Your task to perform on an android device: turn off priority inbox in the gmail app Image 0: 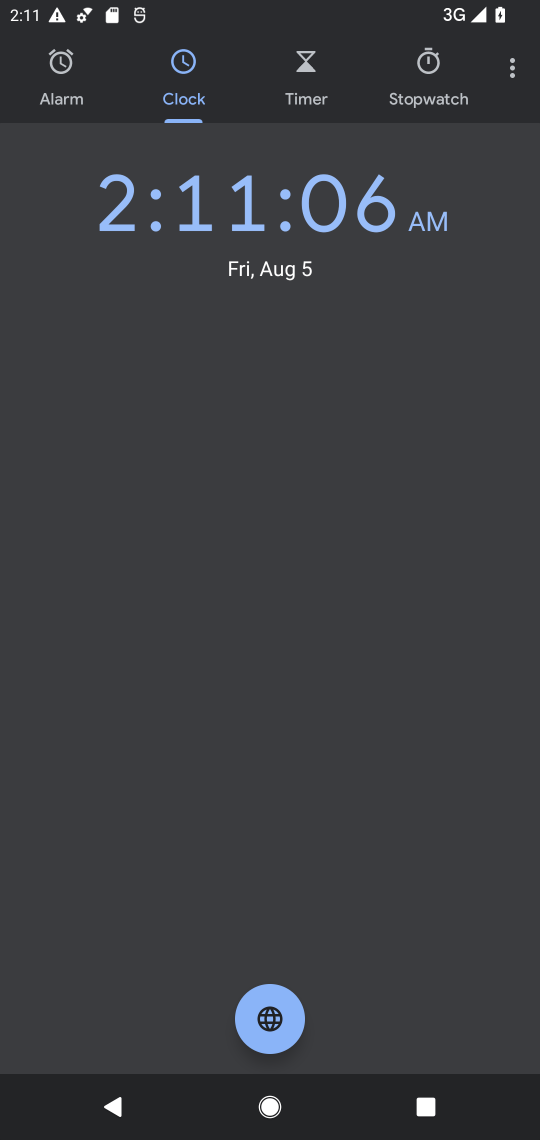
Step 0: press home button
Your task to perform on an android device: turn off priority inbox in the gmail app Image 1: 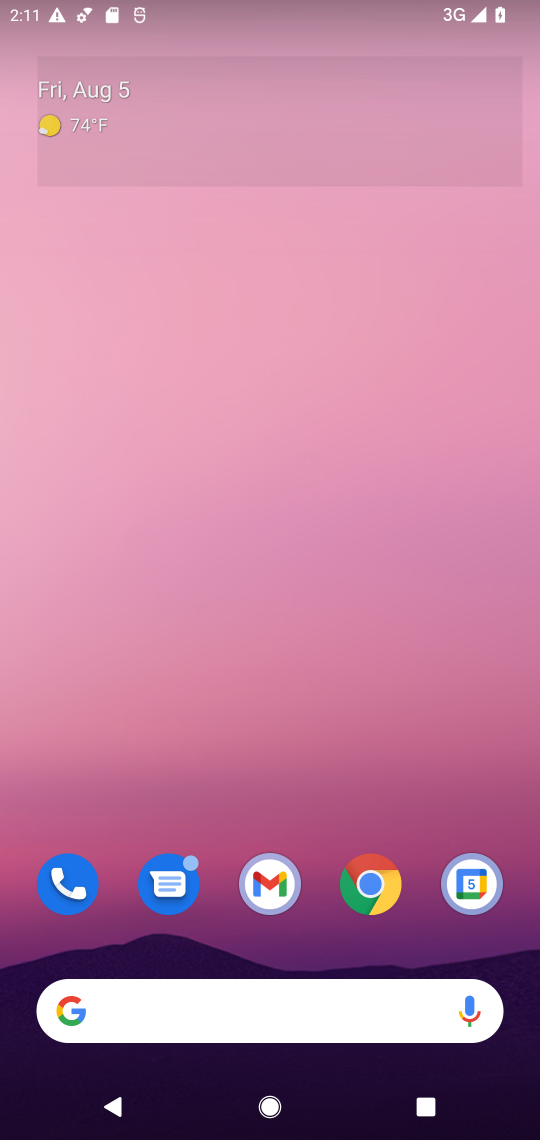
Step 1: drag from (479, 939) to (230, 3)
Your task to perform on an android device: turn off priority inbox in the gmail app Image 2: 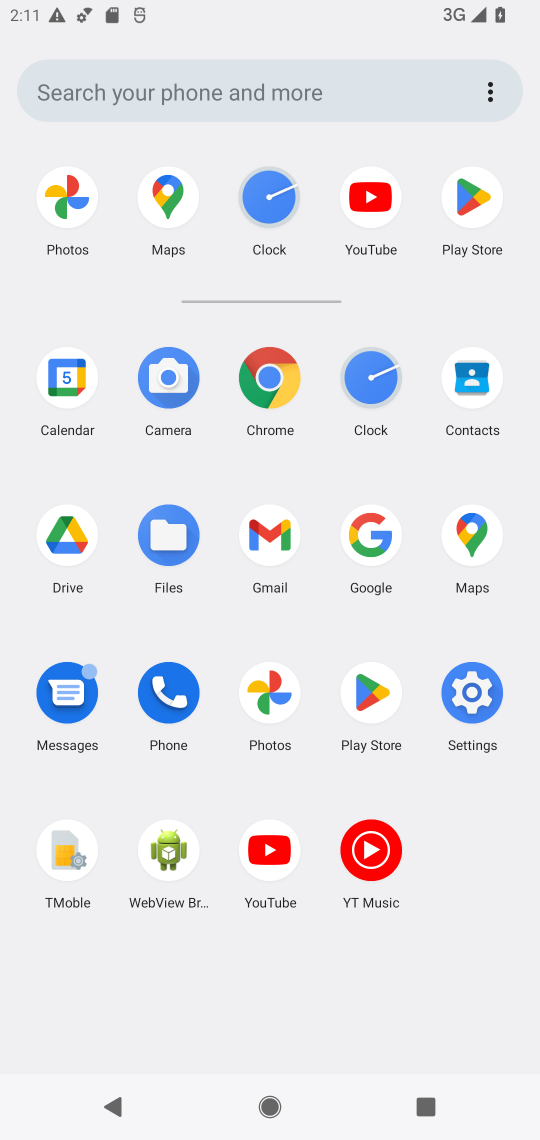
Step 2: click (249, 547)
Your task to perform on an android device: turn off priority inbox in the gmail app Image 3: 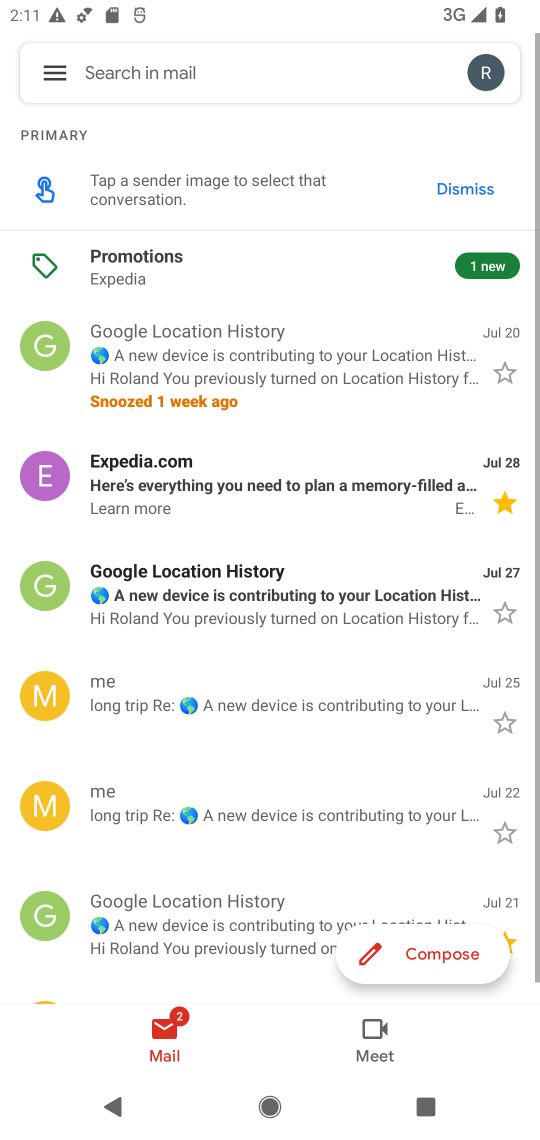
Step 3: click (59, 69)
Your task to perform on an android device: turn off priority inbox in the gmail app Image 4: 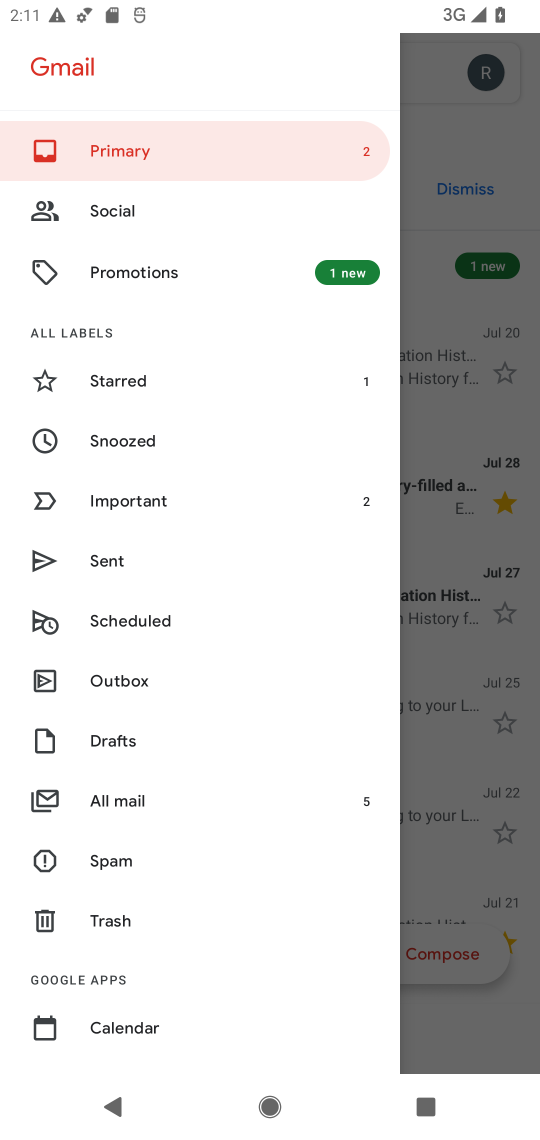
Step 4: drag from (94, 967) to (189, 29)
Your task to perform on an android device: turn off priority inbox in the gmail app Image 5: 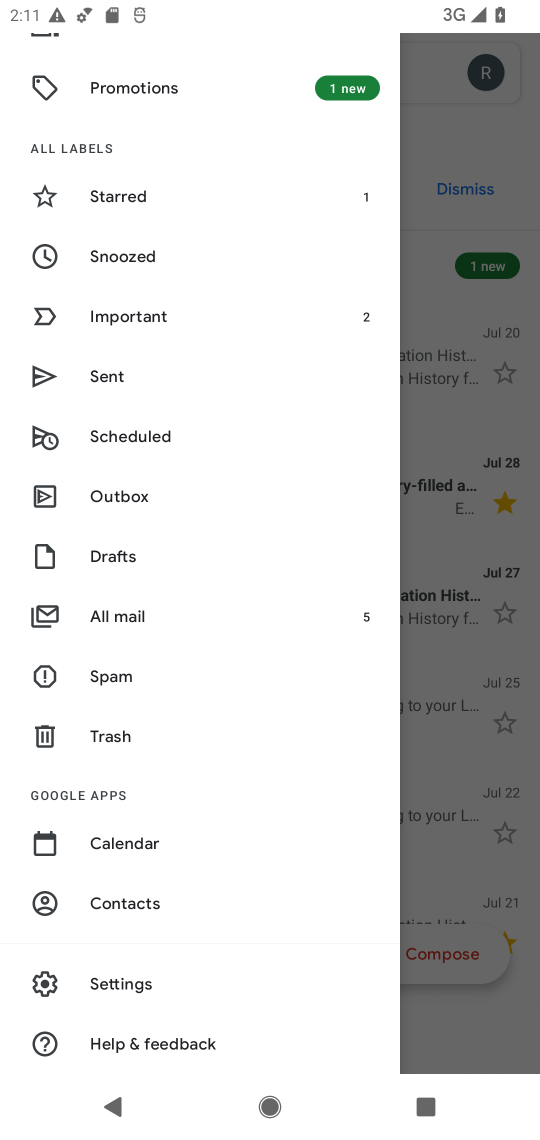
Step 5: click (114, 977)
Your task to perform on an android device: turn off priority inbox in the gmail app Image 6: 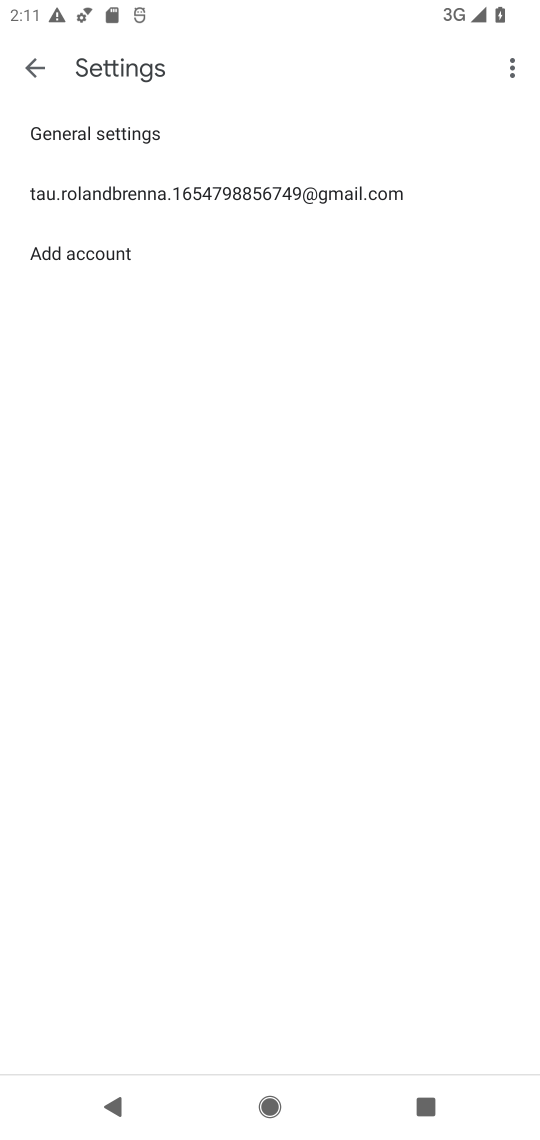
Step 6: click (172, 196)
Your task to perform on an android device: turn off priority inbox in the gmail app Image 7: 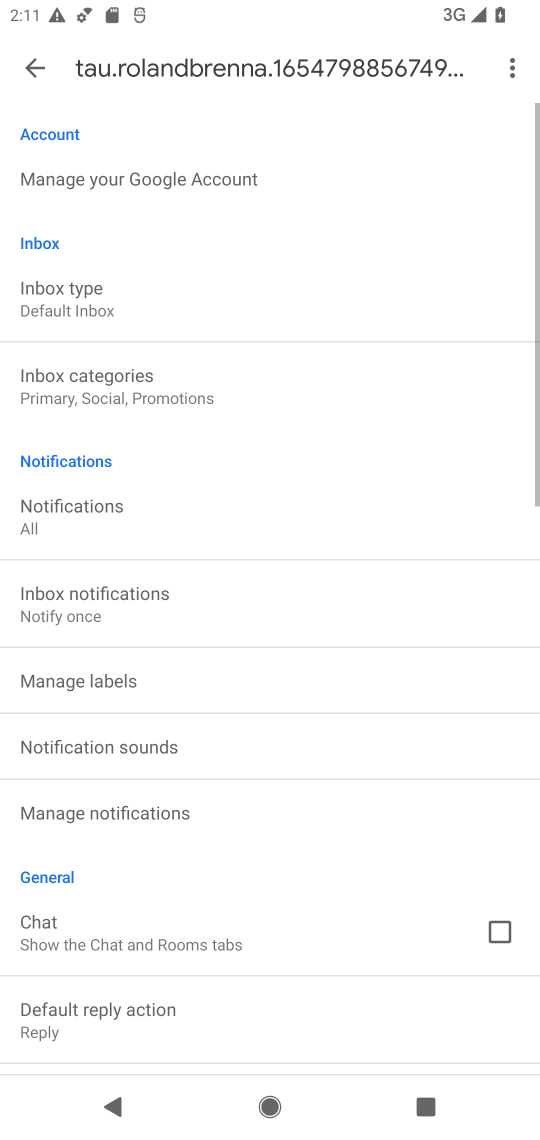
Step 7: click (134, 281)
Your task to perform on an android device: turn off priority inbox in the gmail app Image 8: 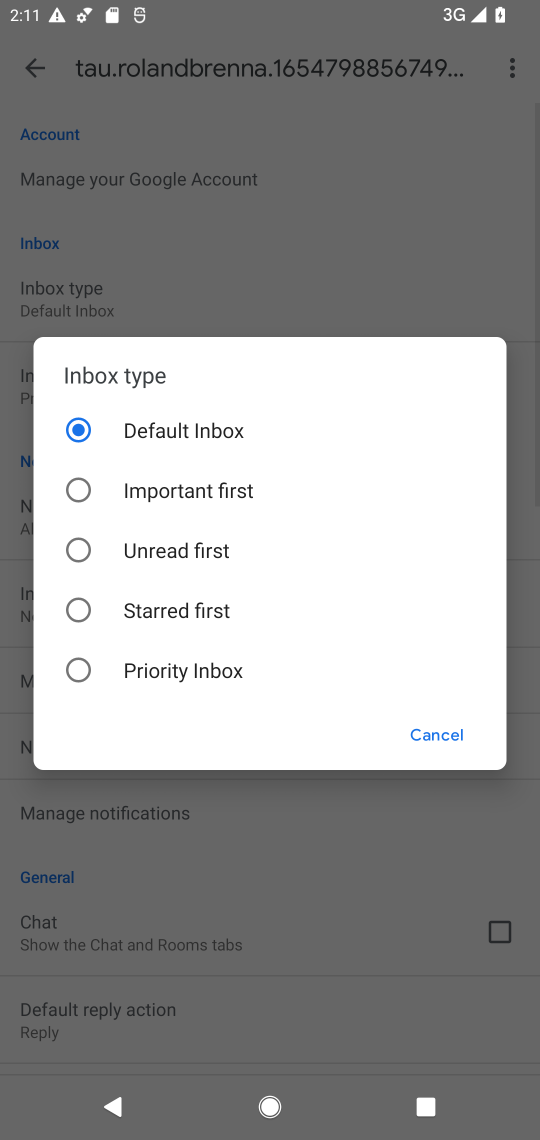
Step 8: click (134, 426)
Your task to perform on an android device: turn off priority inbox in the gmail app Image 9: 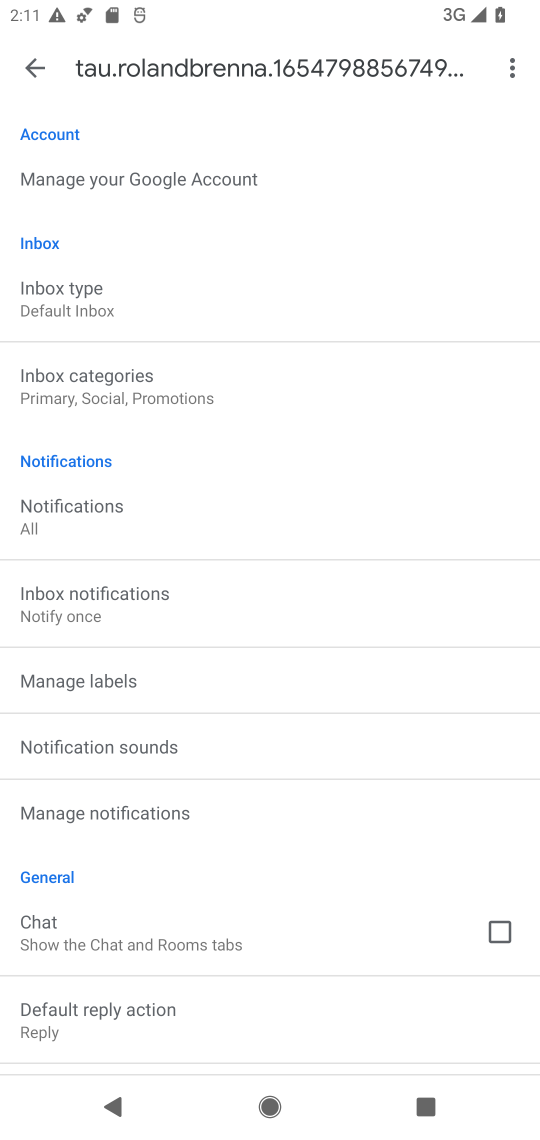
Step 9: task complete